Your task to perform on an android device: Set the phone to "Do not disturb". Image 0: 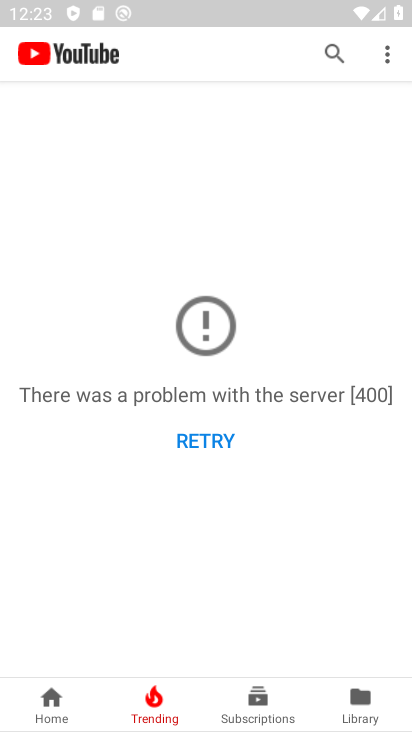
Step 0: drag from (165, 10) to (155, 517)
Your task to perform on an android device: Set the phone to "Do not disturb". Image 1: 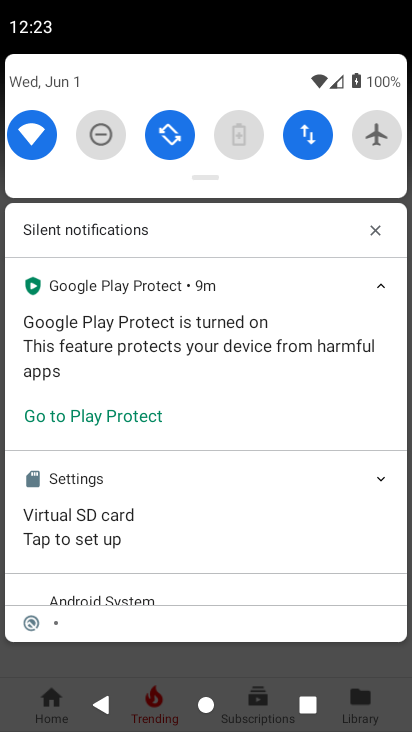
Step 1: click (100, 132)
Your task to perform on an android device: Set the phone to "Do not disturb". Image 2: 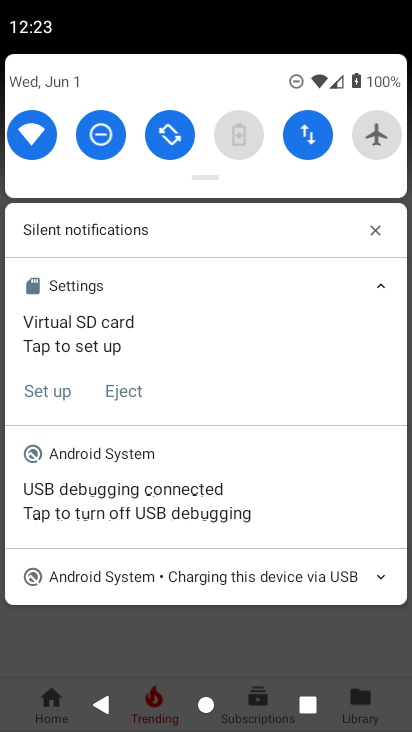
Step 2: task complete